Your task to perform on an android device: Go to settings Image 0: 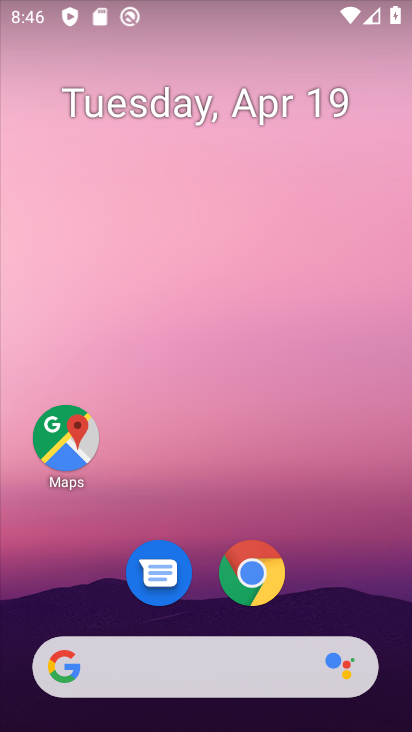
Step 0: drag from (211, 294) to (215, 149)
Your task to perform on an android device: Go to settings Image 1: 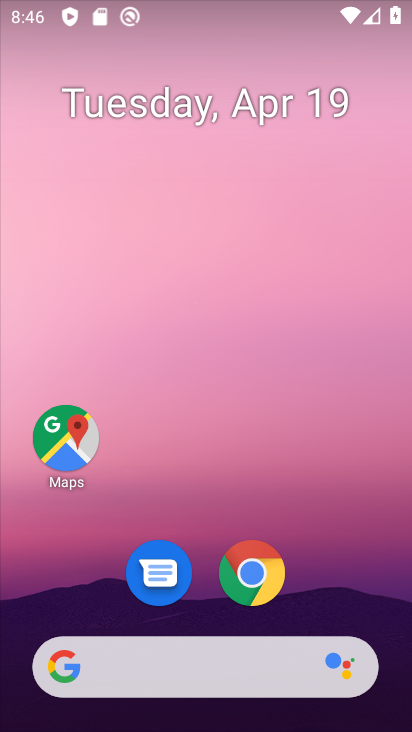
Step 1: drag from (202, 505) to (196, 12)
Your task to perform on an android device: Go to settings Image 2: 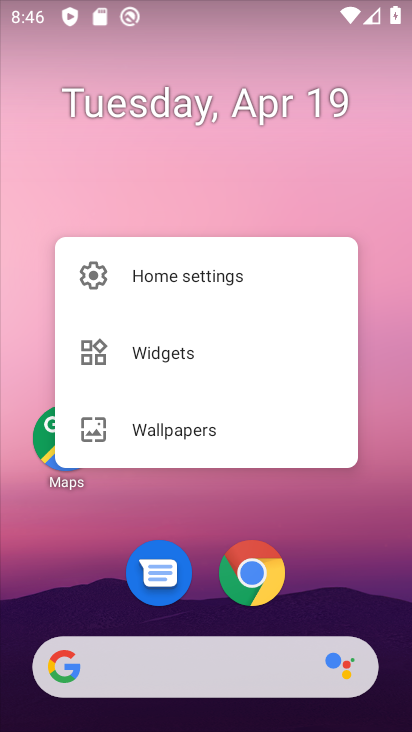
Step 2: click (196, 499)
Your task to perform on an android device: Go to settings Image 3: 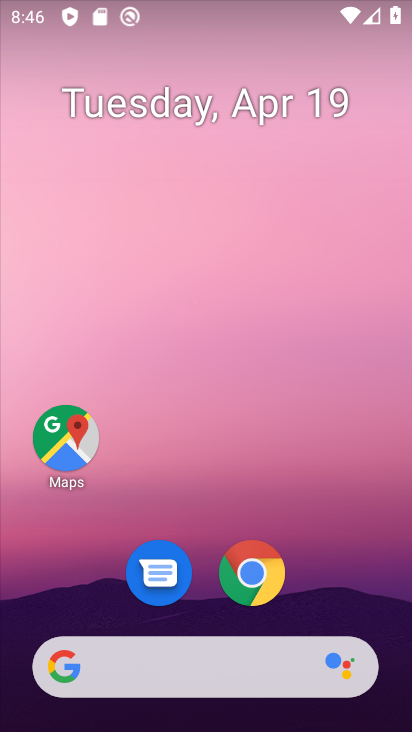
Step 3: click (196, 499)
Your task to perform on an android device: Go to settings Image 4: 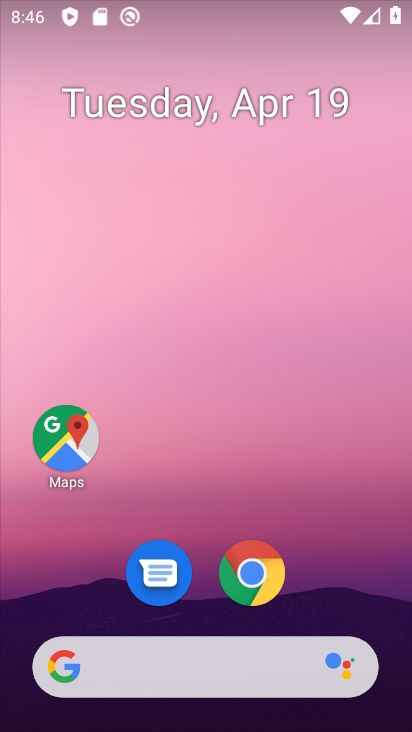
Step 4: drag from (192, 483) to (212, 4)
Your task to perform on an android device: Go to settings Image 5: 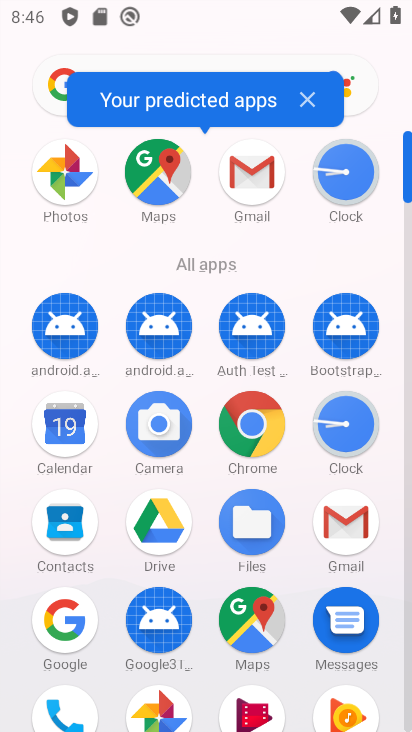
Step 5: drag from (203, 680) to (209, 369)
Your task to perform on an android device: Go to settings Image 6: 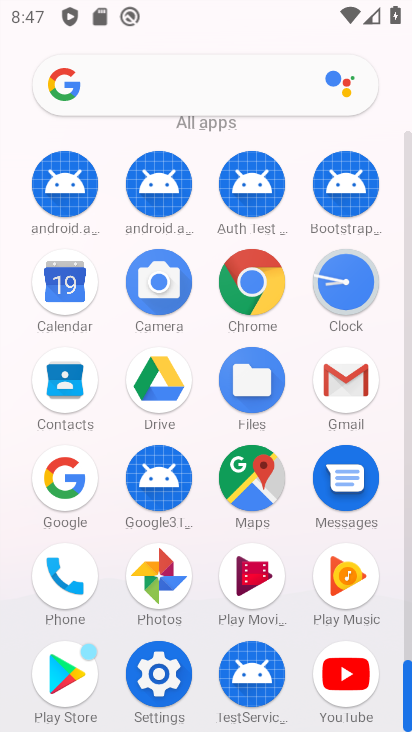
Step 6: click (168, 666)
Your task to perform on an android device: Go to settings Image 7: 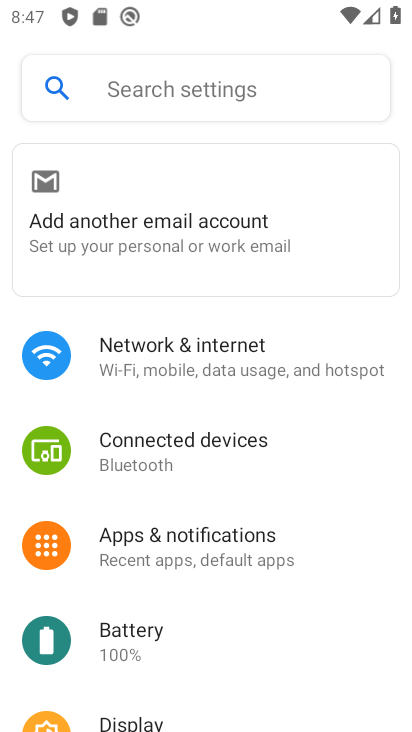
Step 7: task complete